Your task to perform on an android device: delete location history Image 0: 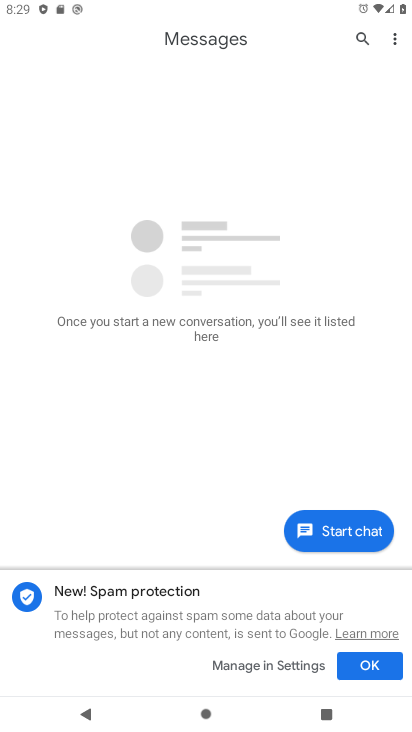
Step 0: press home button
Your task to perform on an android device: delete location history Image 1: 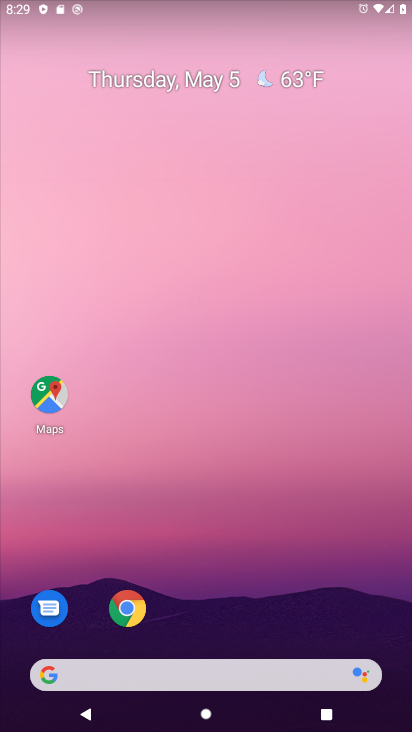
Step 1: click (49, 399)
Your task to perform on an android device: delete location history Image 2: 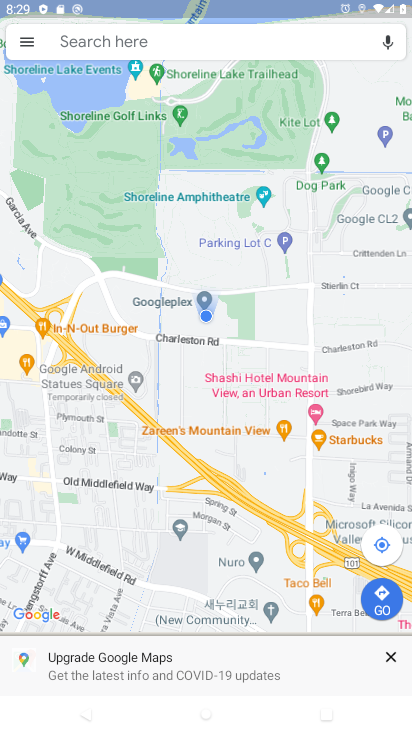
Step 2: click (25, 42)
Your task to perform on an android device: delete location history Image 3: 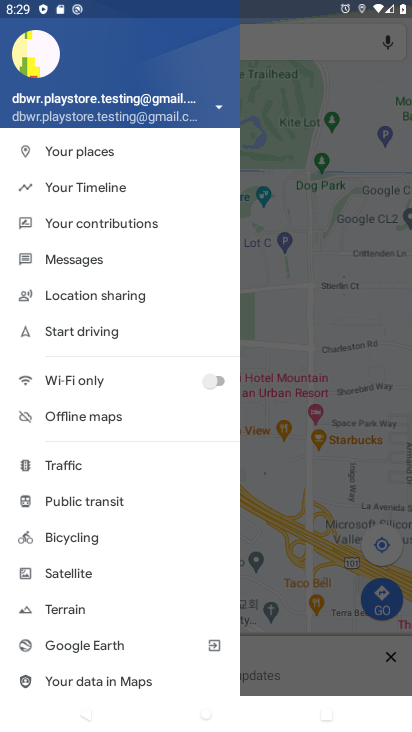
Step 3: drag from (97, 629) to (87, 312)
Your task to perform on an android device: delete location history Image 4: 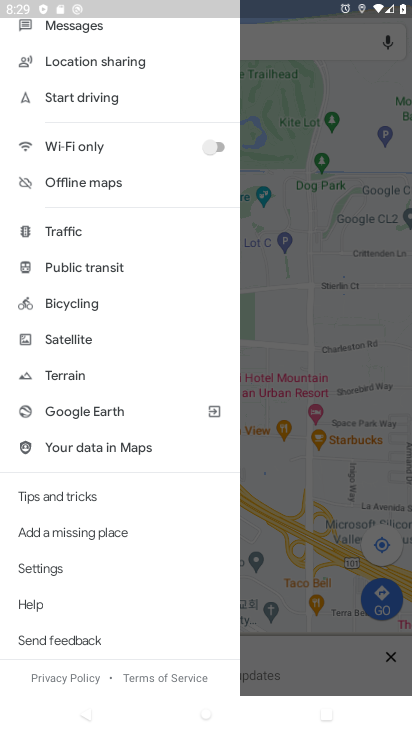
Step 4: click (40, 565)
Your task to perform on an android device: delete location history Image 5: 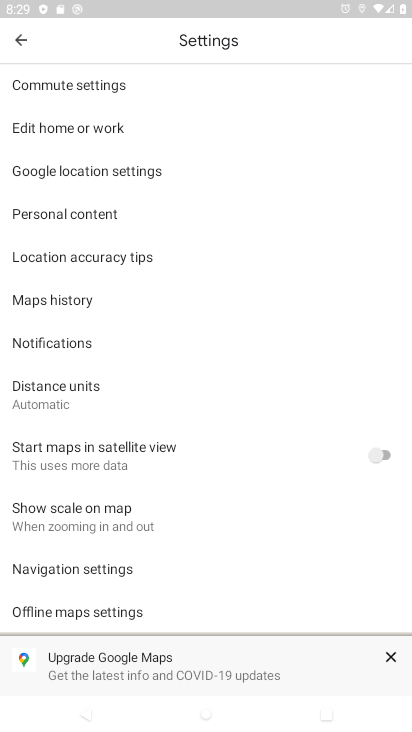
Step 5: click (43, 296)
Your task to perform on an android device: delete location history Image 6: 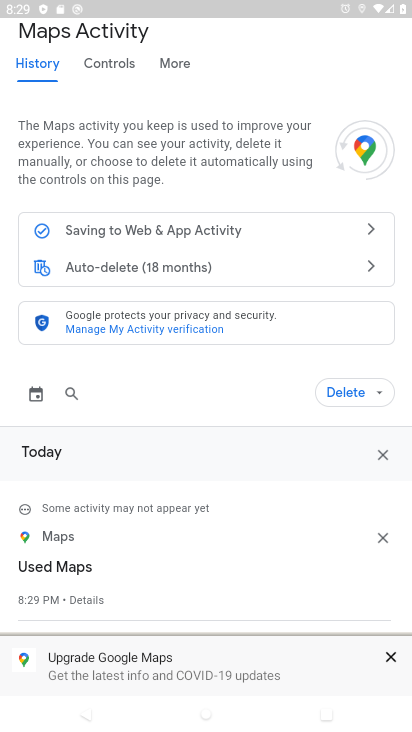
Step 6: click (350, 389)
Your task to perform on an android device: delete location history Image 7: 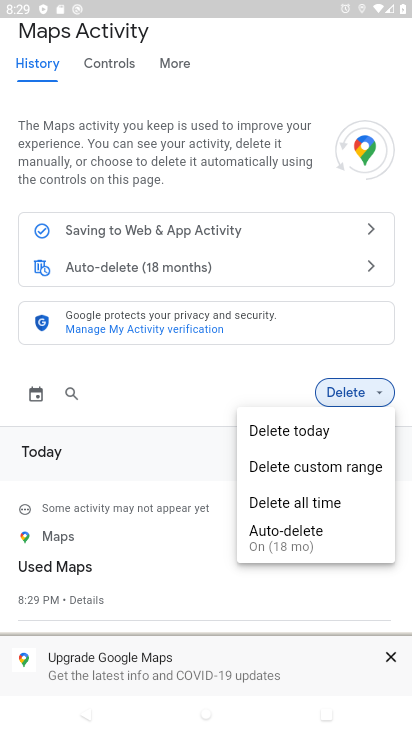
Step 7: click (296, 427)
Your task to perform on an android device: delete location history Image 8: 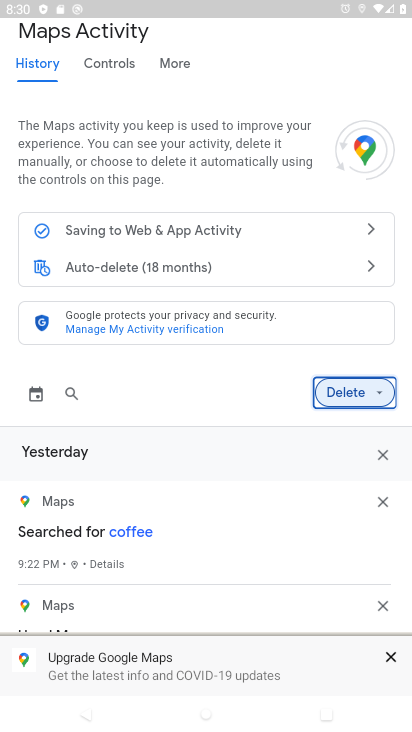
Step 8: drag from (197, 585) to (197, 257)
Your task to perform on an android device: delete location history Image 9: 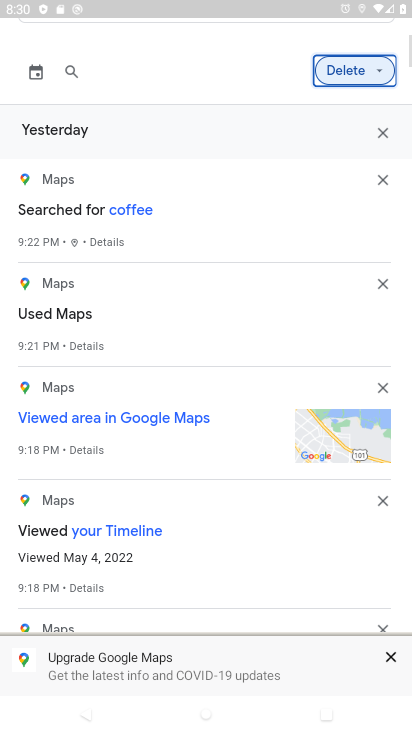
Step 9: click (158, 580)
Your task to perform on an android device: delete location history Image 10: 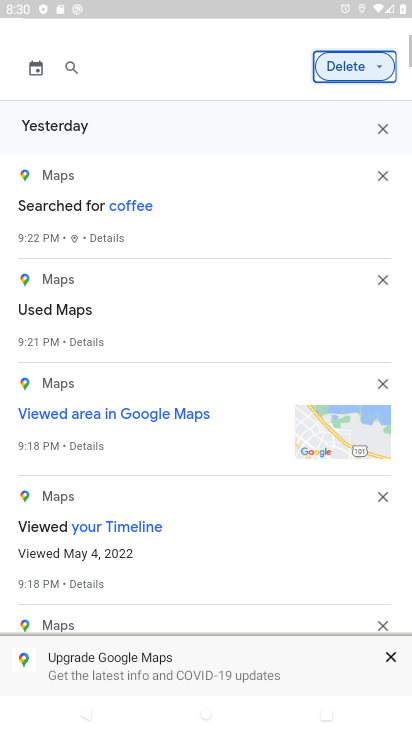
Step 10: drag from (230, 260) to (182, 584)
Your task to perform on an android device: delete location history Image 11: 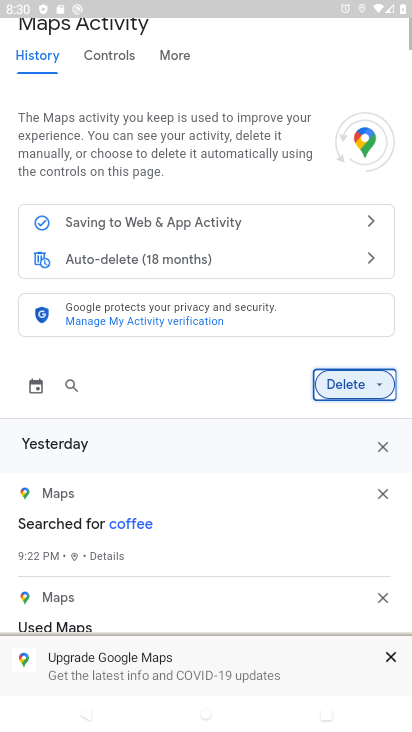
Step 11: drag from (208, 237) to (208, 410)
Your task to perform on an android device: delete location history Image 12: 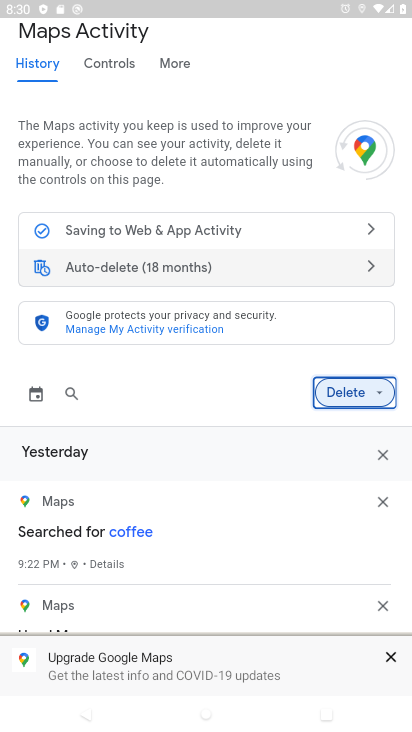
Step 12: click (374, 389)
Your task to perform on an android device: delete location history Image 13: 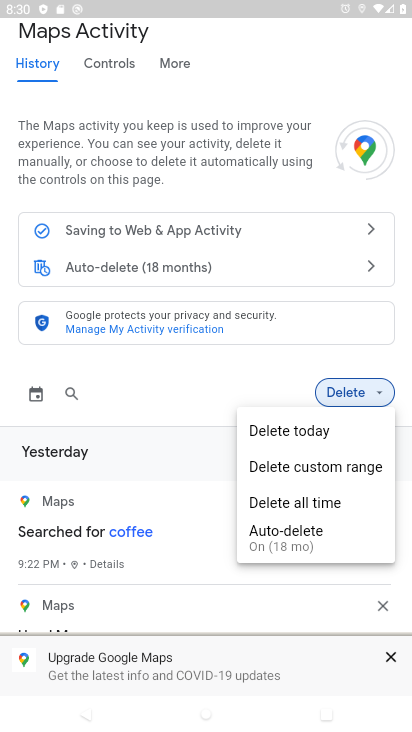
Step 13: click (304, 501)
Your task to perform on an android device: delete location history Image 14: 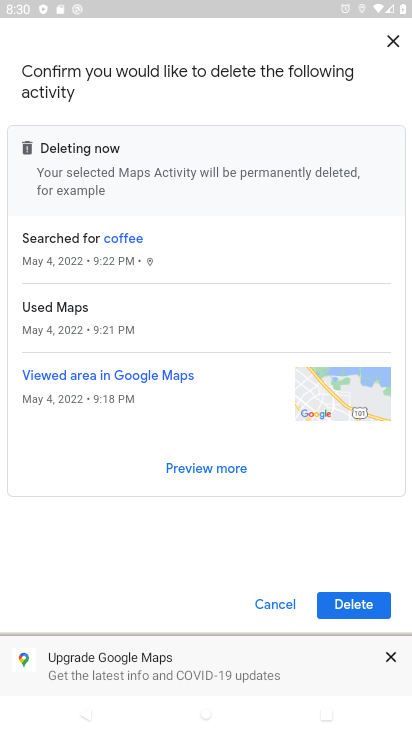
Step 14: click (351, 601)
Your task to perform on an android device: delete location history Image 15: 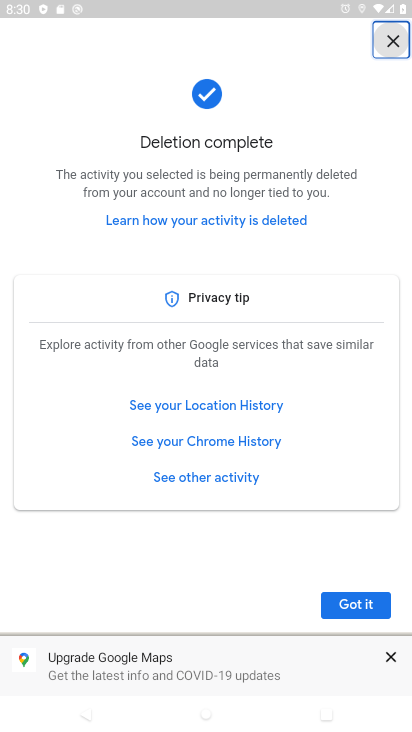
Step 15: task complete